Your task to perform on an android device: open chrome and create a bookmark for the current page Image 0: 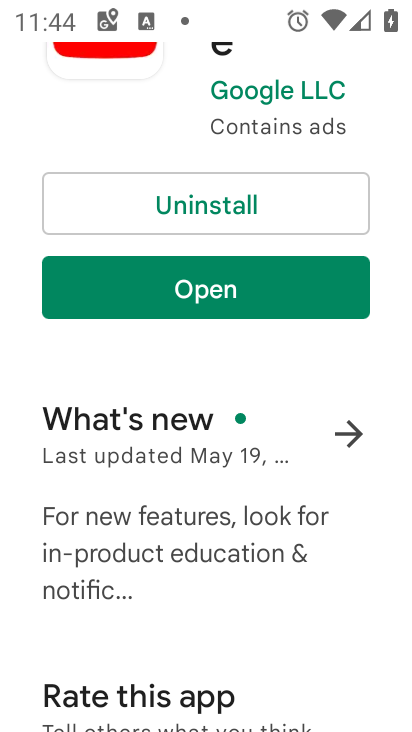
Step 0: press home button
Your task to perform on an android device: open chrome and create a bookmark for the current page Image 1: 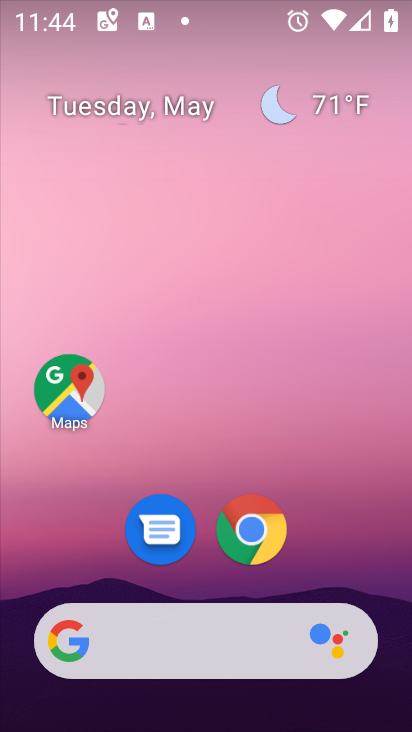
Step 1: drag from (187, 619) to (150, 200)
Your task to perform on an android device: open chrome and create a bookmark for the current page Image 2: 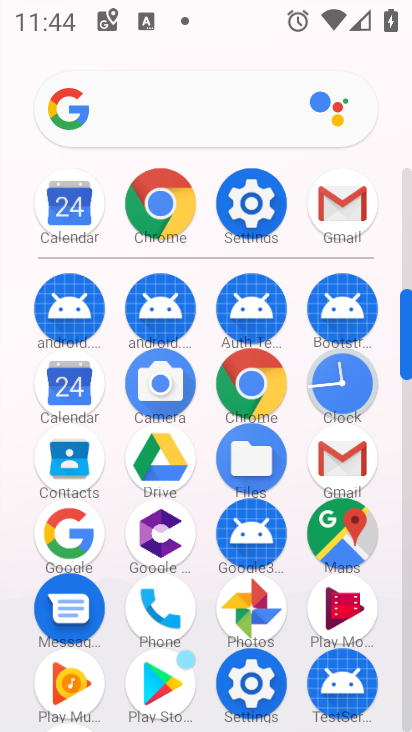
Step 2: click (156, 224)
Your task to perform on an android device: open chrome and create a bookmark for the current page Image 3: 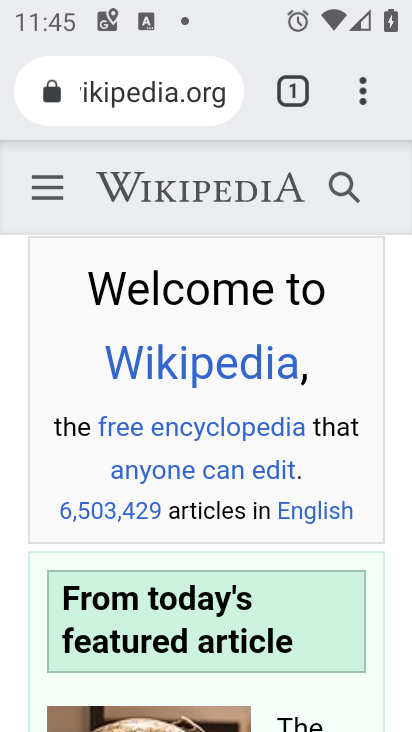
Step 3: click (371, 96)
Your task to perform on an android device: open chrome and create a bookmark for the current page Image 4: 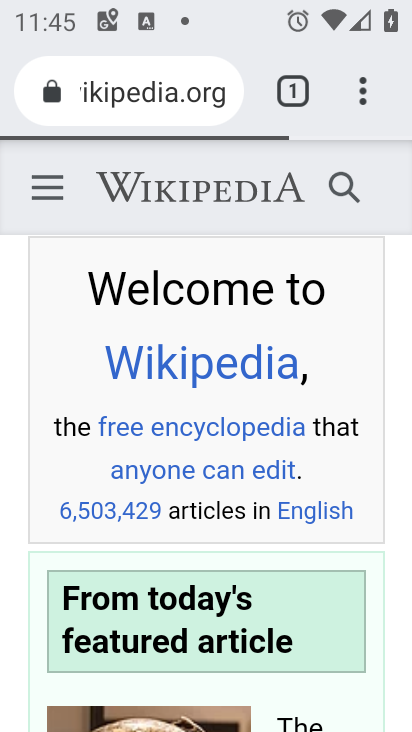
Step 4: click (371, 96)
Your task to perform on an android device: open chrome and create a bookmark for the current page Image 5: 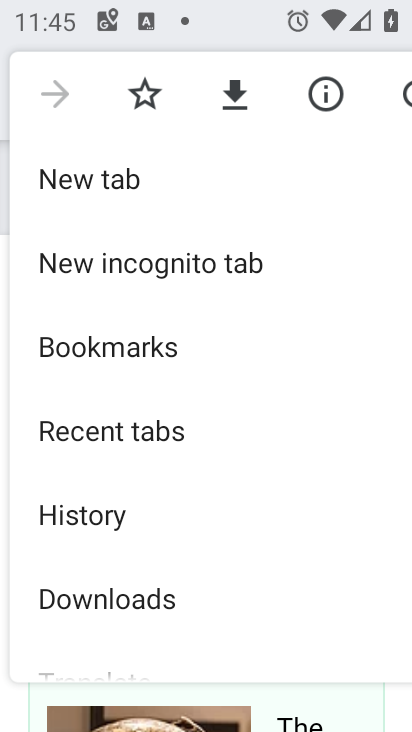
Step 5: click (145, 94)
Your task to perform on an android device: open chrome and create a bookmark for the current page Image 6: 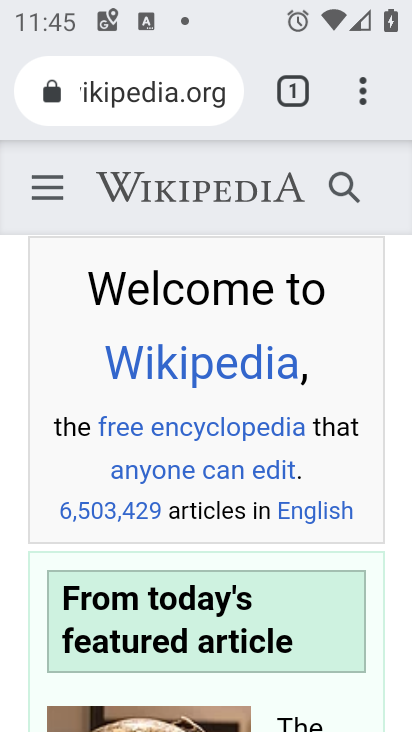
Step 6: task complete